Your task to perform on an android device: When is my next meeting? Image 0: 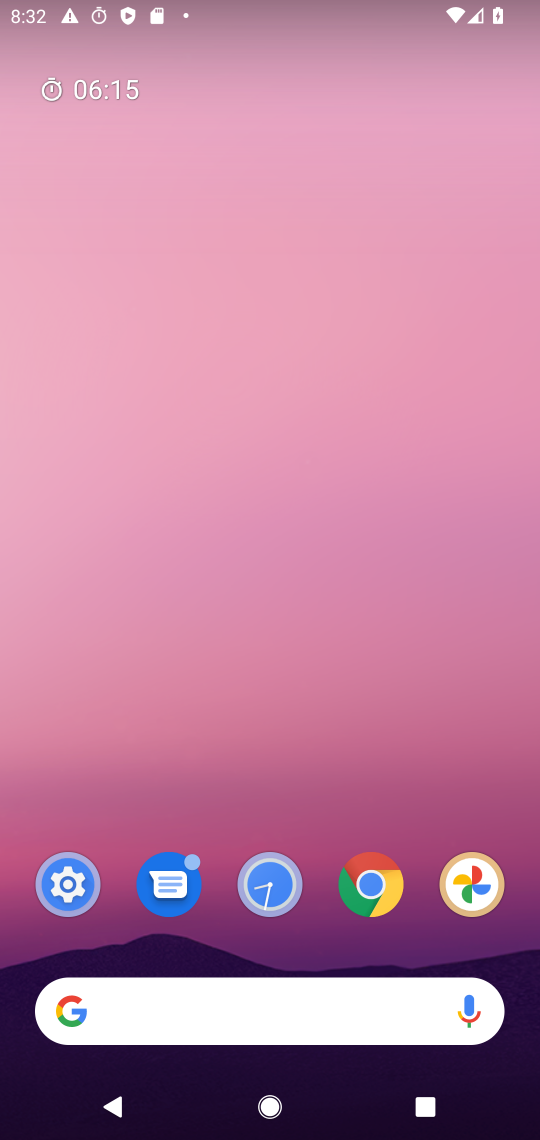
Step 0: press home button
Your task to perform on an android device: When is my next meeting? Image 1: 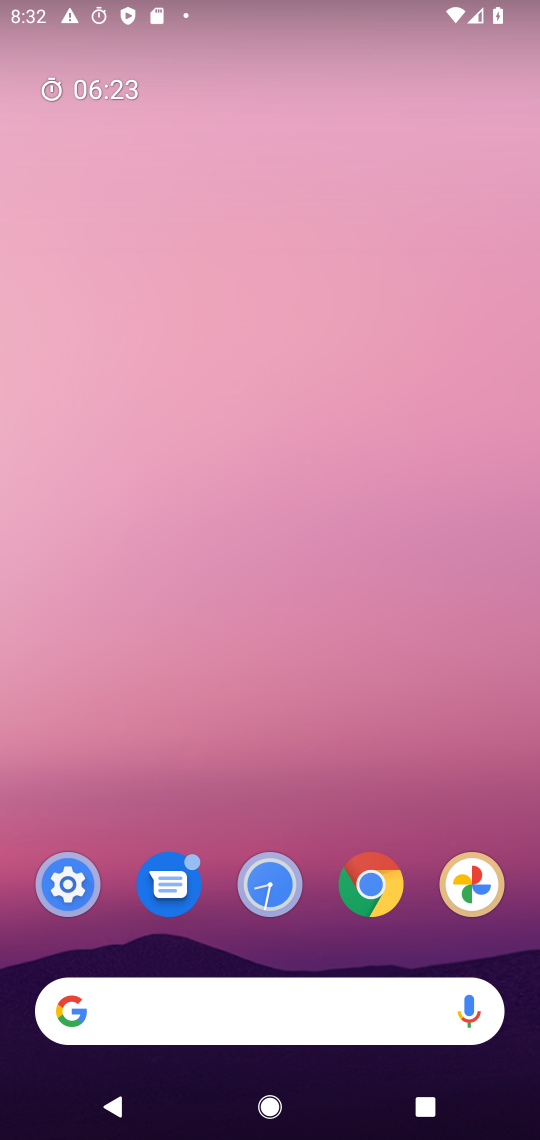
Step 1: drag from (313, 926) to (326, 38)
Your task to perform on an android device: When is my next meeting? Image 2: 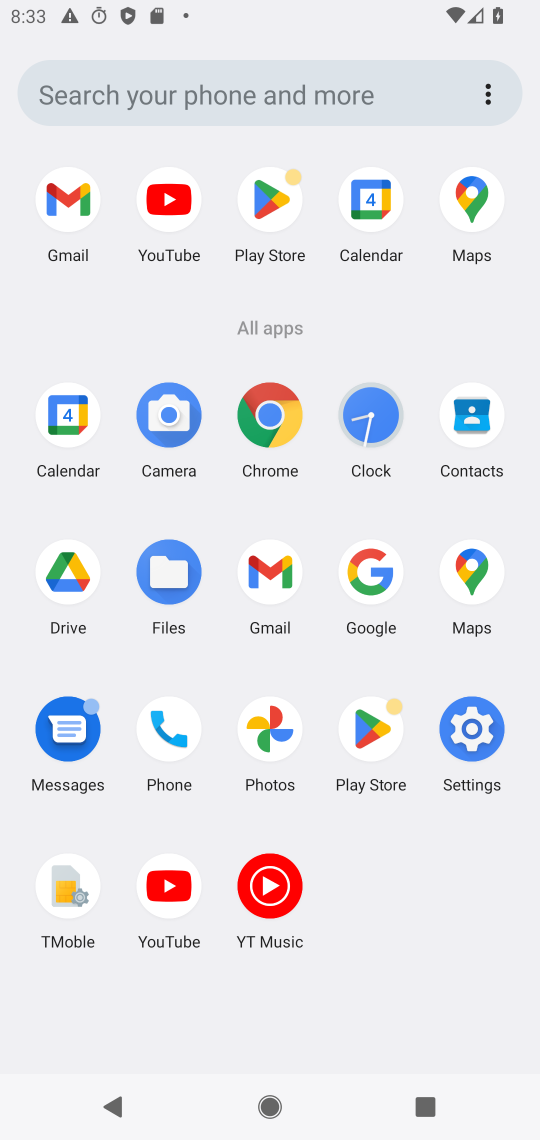
Step 2: click (391, 199)
Your task to perform on an android device: When is my next meeting? Image 3: 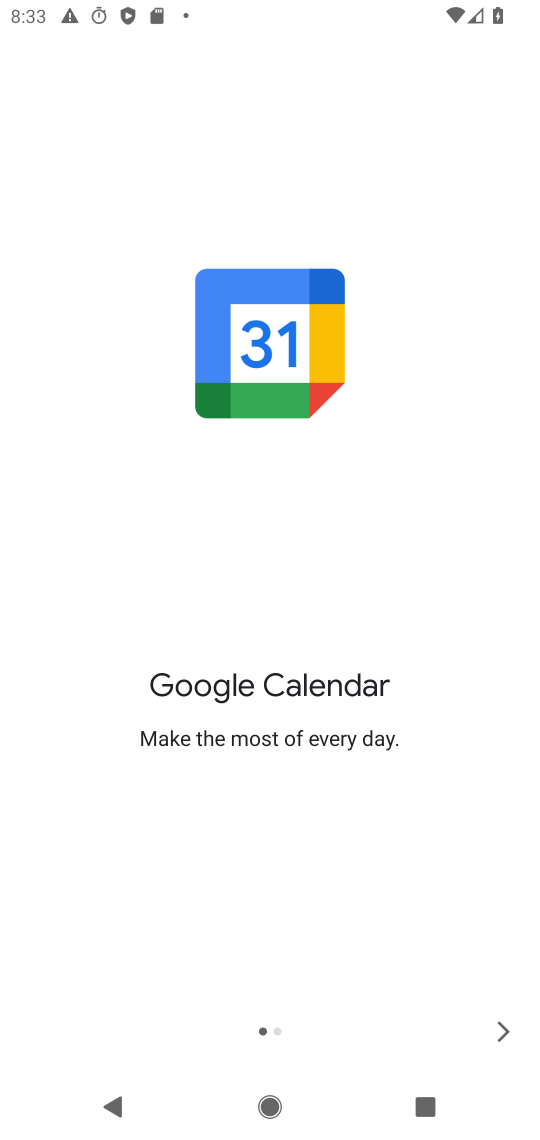
Step 3: click (492, 1023)
Your task to perform on an android device: When is my next meeting? Image 4: 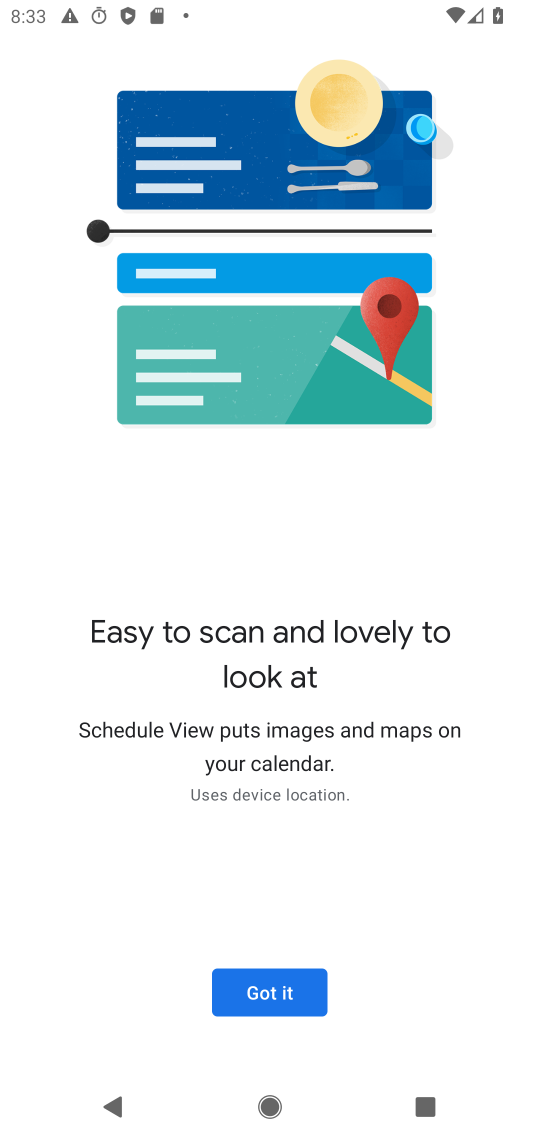
Step 4: click (265, 993)
Your task to perform on an android device: When is my next meeting? Image 5: 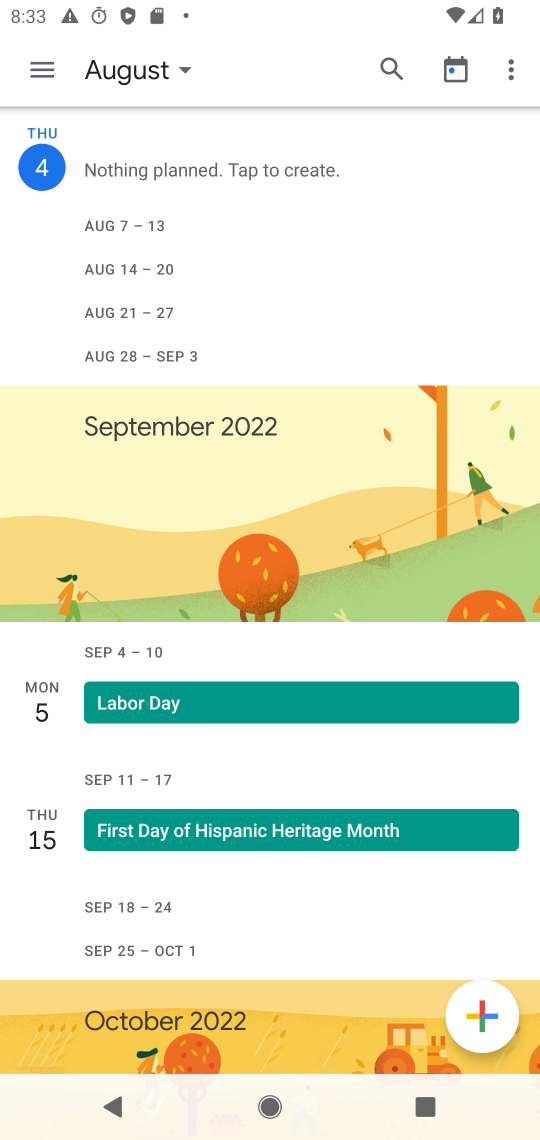
Step 5: click (39, 67)
Your task to perform on an android device: When is my next meeting? Image 6: 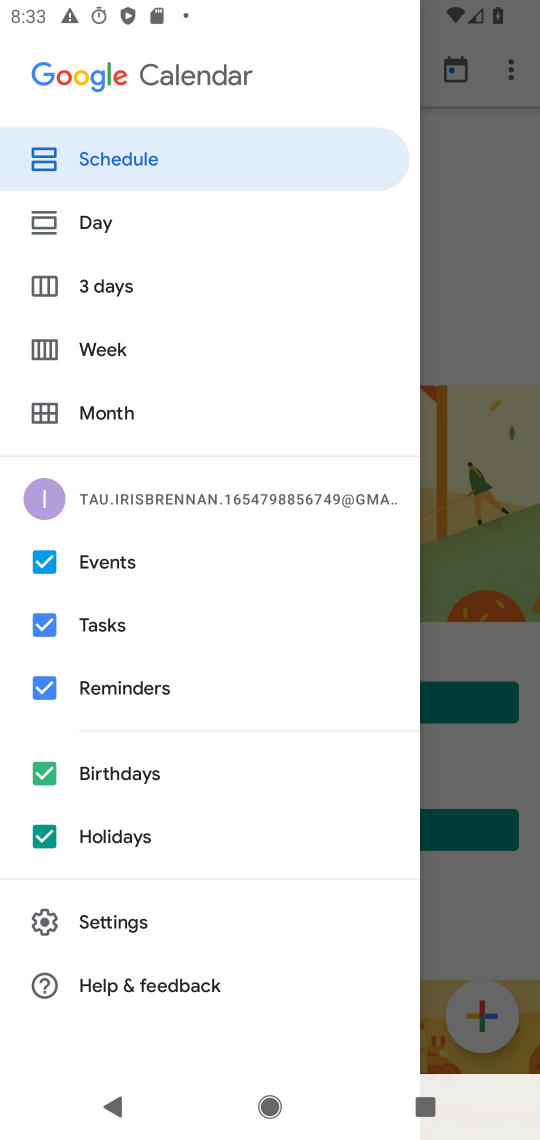
Step 6: click (110, 150)
Your task to perform on an android device: When is my next meeting? Image 7: 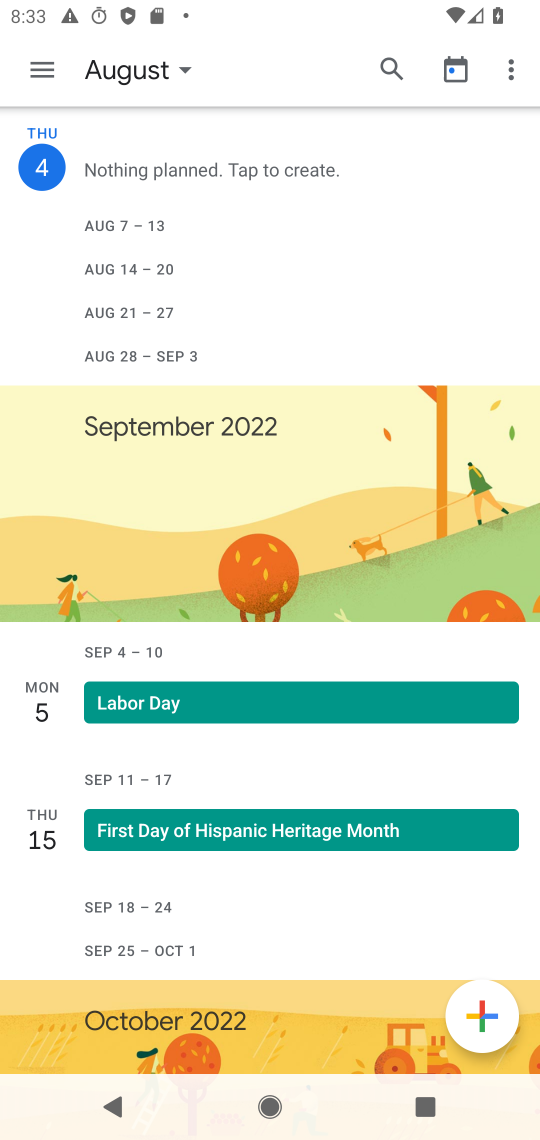
Step 7: task complete